Your task to perform on an android device: refresh tabs in the chrome app Image 0: 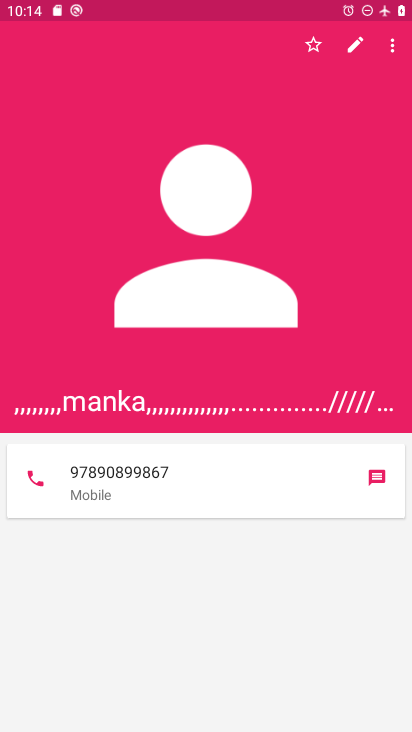
Step 0: press home button
Your task to perform on an android device: refresh tabs in the chrome app Image 1: 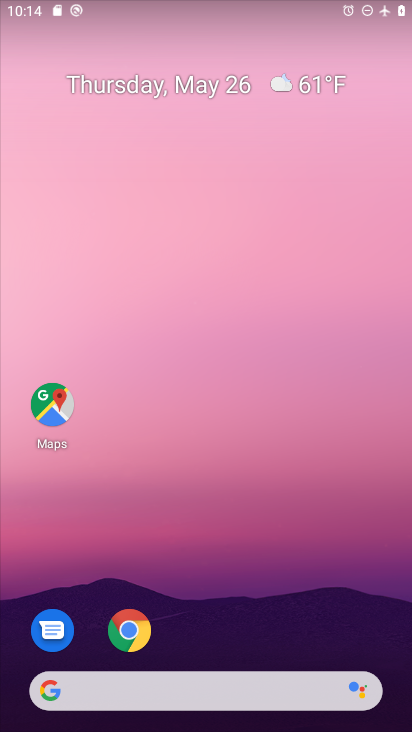
Step 1: click (148, 637)
Your task to perform on an android device: refresh tabs in the chrome app Image 2: 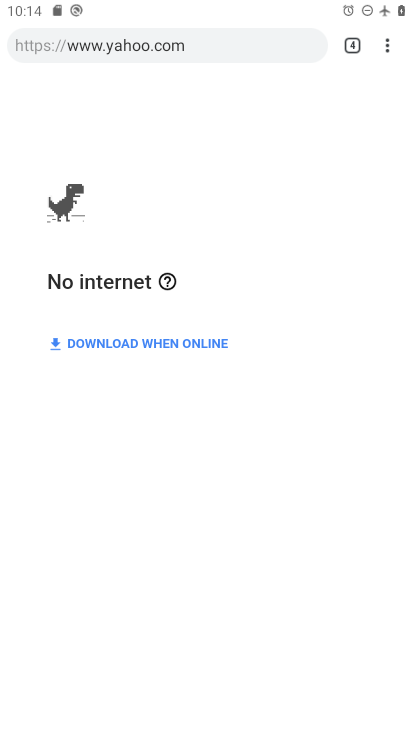
Step 2: click (387, 50)
Your task to perform on an android device: refresh tabs in the chrome app Image 3: 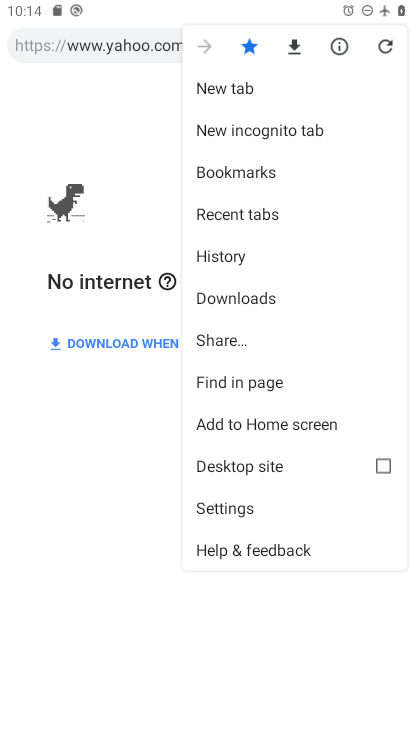
Step 3: click (387, 50)
Your task to perform on an android device: refresh tabs in the chrome app Image 4: 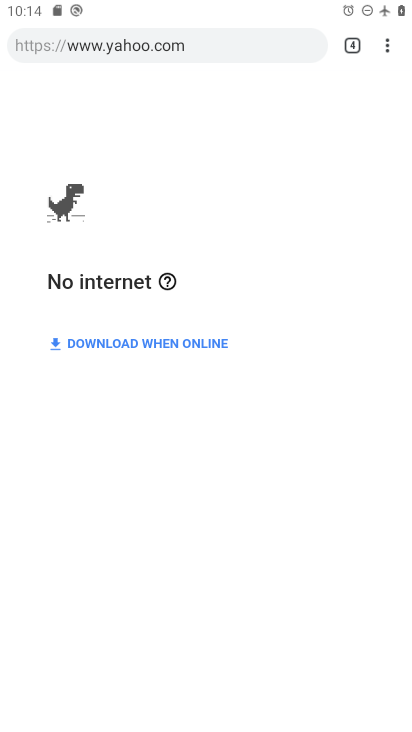
Step 4: task complete